Your task to perform on an android device: move a message to another label in the gmail app Image 0: 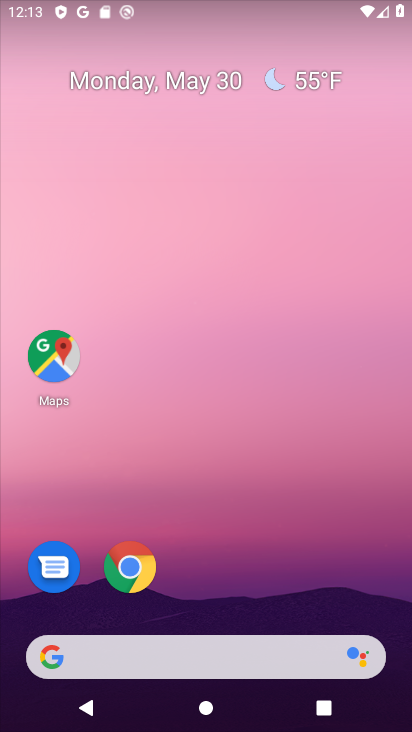
Step 0: drag from (229, 620) to (210, 60)
Your task to perform on an android device: move a message to another label in the gmail app Image 1: 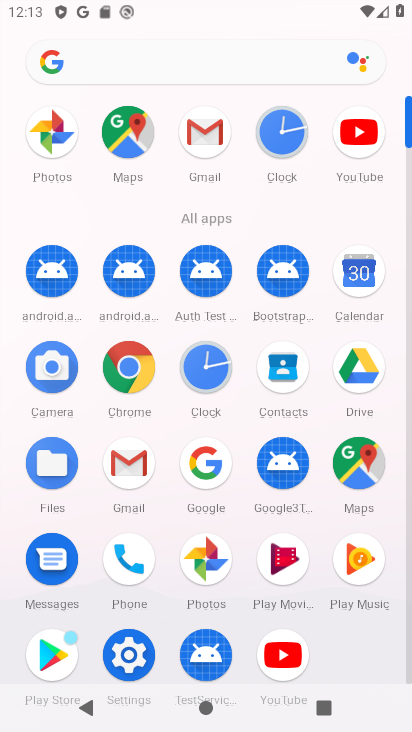
Step 1: click (202, 128)
Your task to perform on an android device: move a message to another label in the gmail app Image 2: 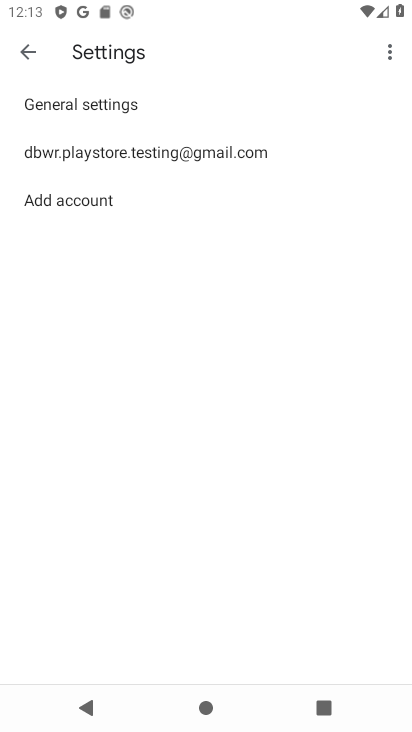
Step 2: click (33, 54)
Your task to perform on an android device: move a message to another label in the gmail app Image 3: 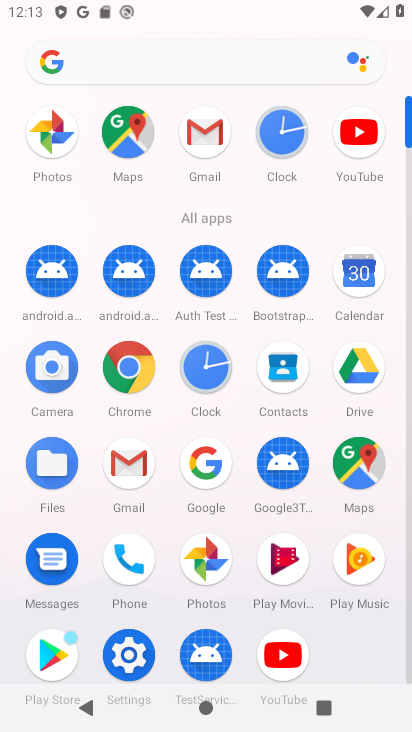
Step 3: click (123, 458)
Your task to perform on an android device: move a message to another label in the gmail app Image 4: 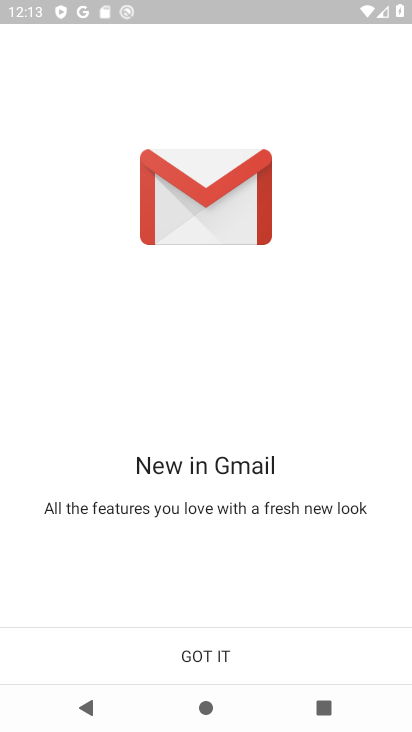
Step 4: click (197, 663)
Your task to perform on an android device: move a message to another label in the gmail app Image 5: 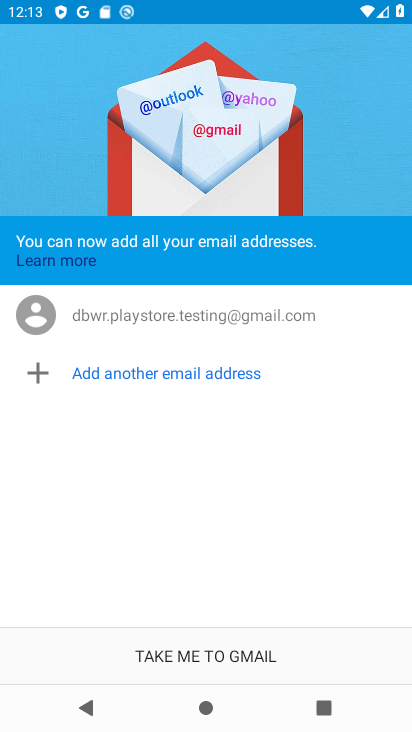
Step 5: click (203, 662)
Your task to perform on an android device: move a message to another label in the gmail app Image 6: 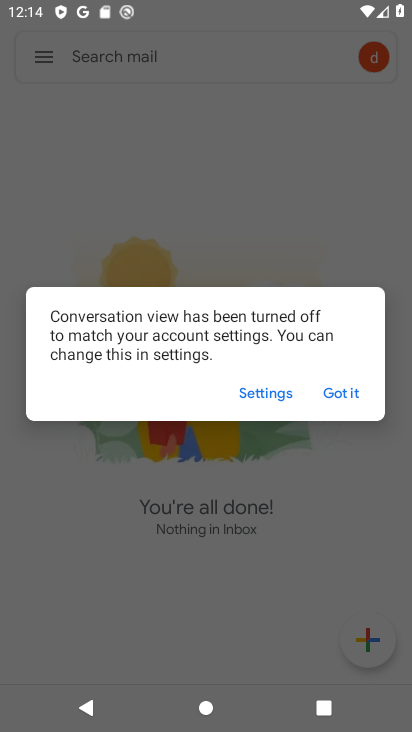
Step 6: click (339, 387)
Your task to perform on an android device: move a message to another label in the gmail app Image 7: 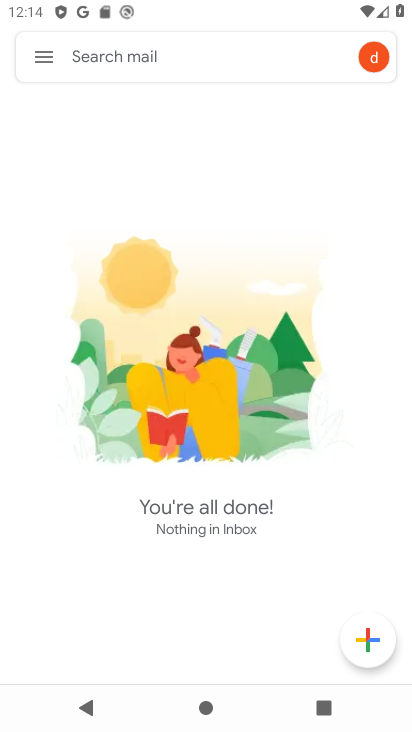
Step 7: task complete